Your task to perform on an android device: Open maps Image 0: 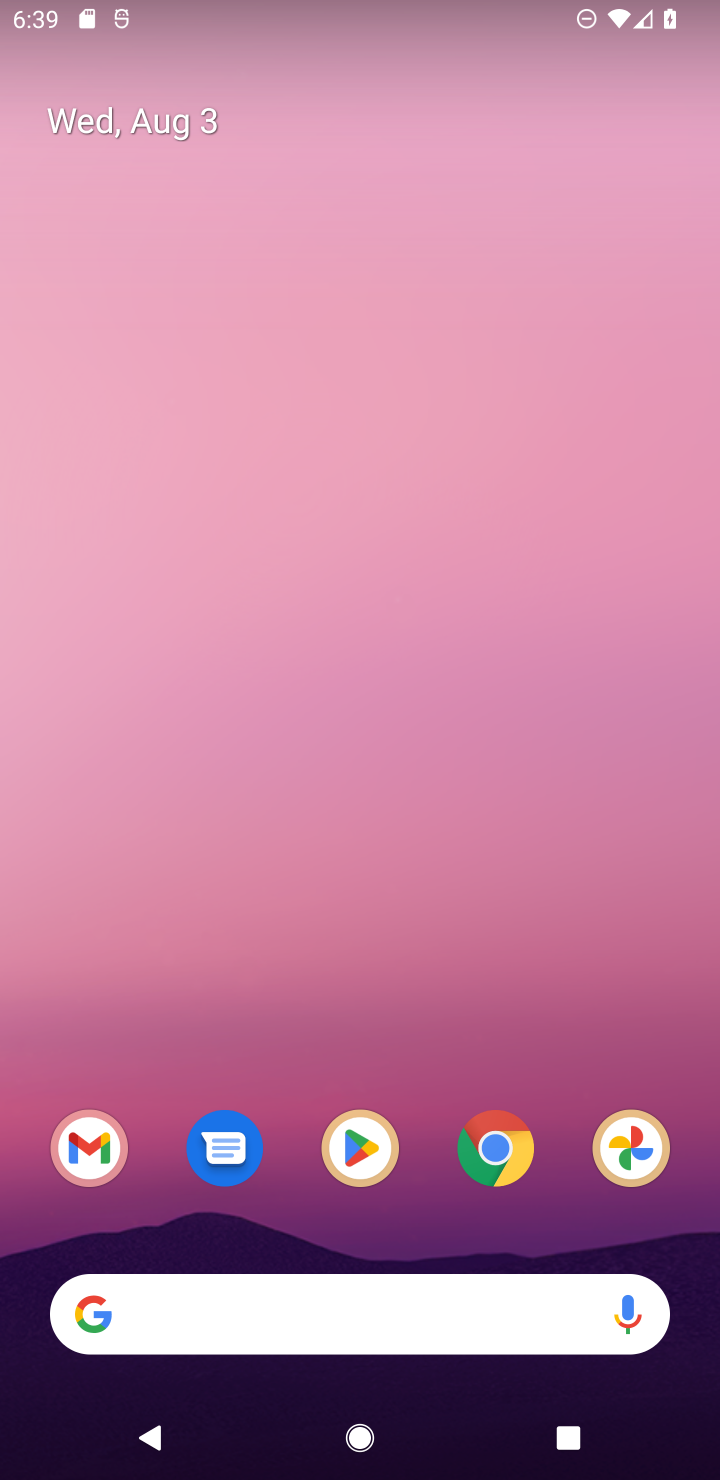
Step 0: drag from (318, 887) to (301, 386)
Your task to perform on an android device: Open maps Image 1: 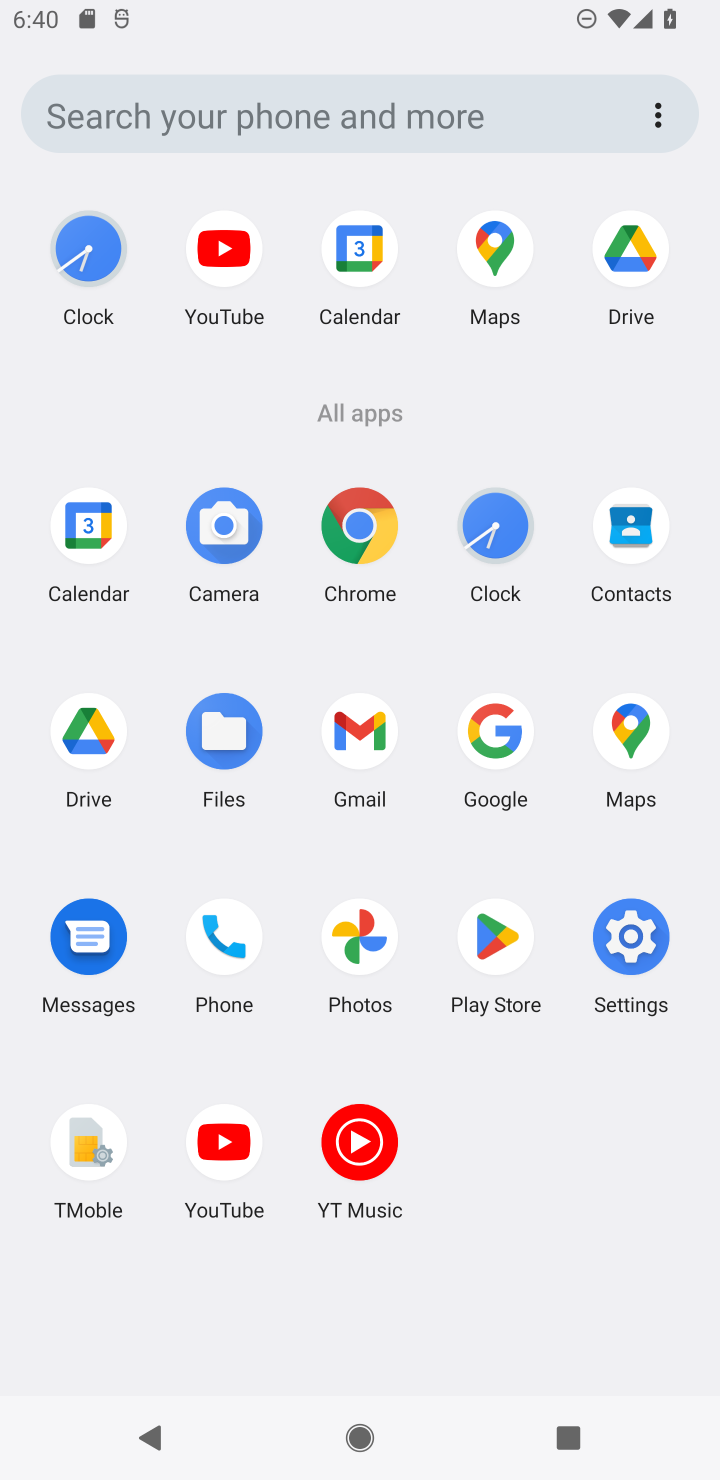
Step 1: click (486, 260)
Your task to perform on an android device: Open maps Image 2: 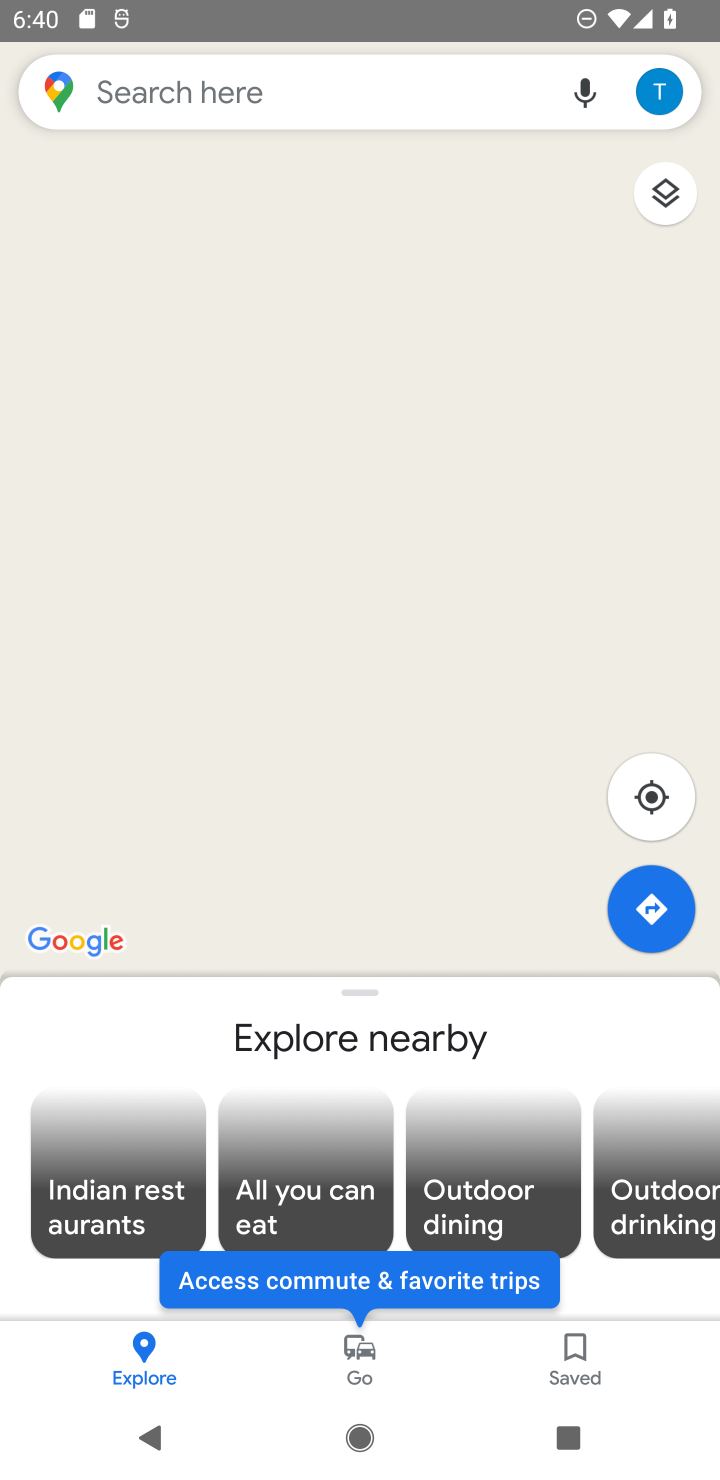
Step 2: task complete